Your task to perform on an android device: toggle wifi Image 0: 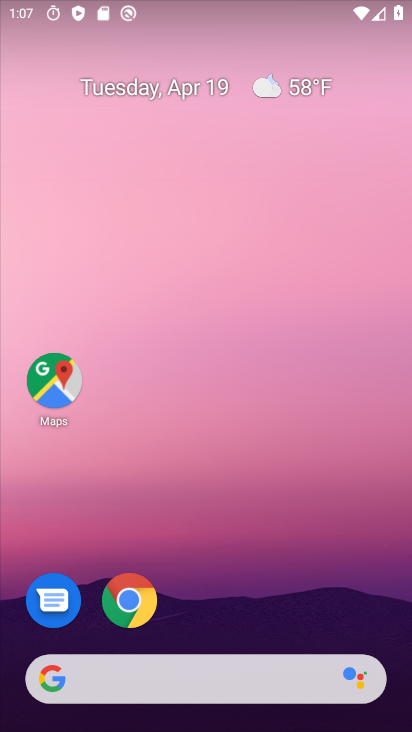
Step 0: drag from (192, 709) to (391, 192)
Your task to perform on an android device: toggle wifi Image 1: 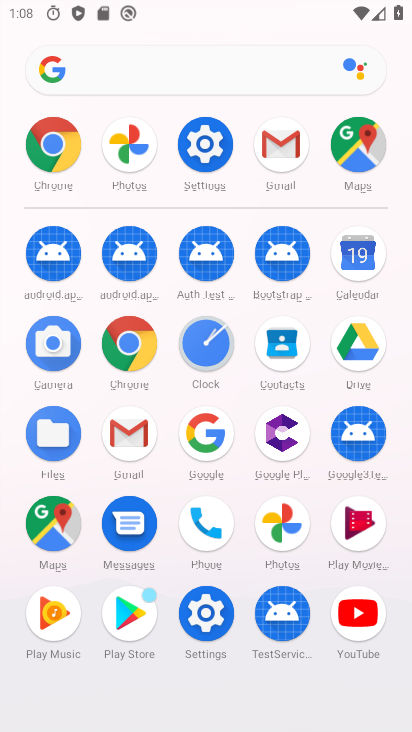
Step 1: click (218, 162)
Your task to perform on an android device: toggle wifi Image 2: 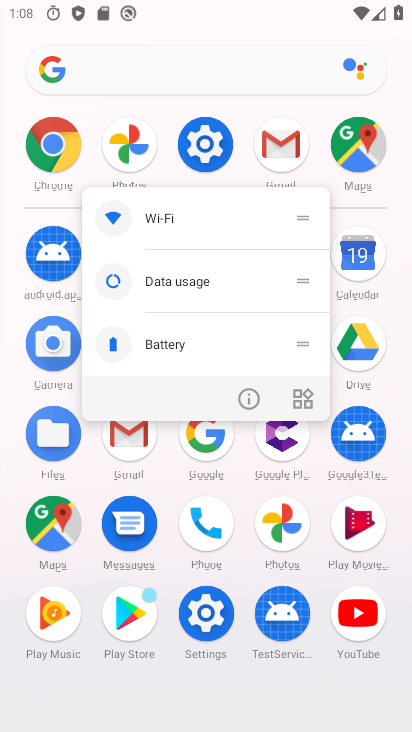
Step 2: click (218, 162)
Your task to perform on an android device: toggle wifi Image 3: 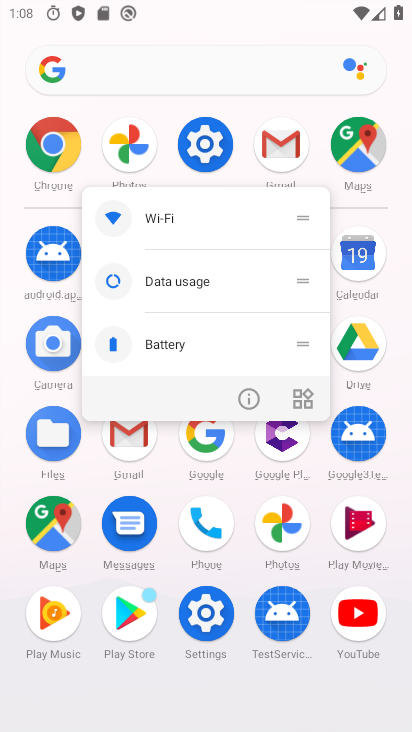
Step 3: click (218, 162)
Your task to perform on an android device: toggle wifi Image 4: 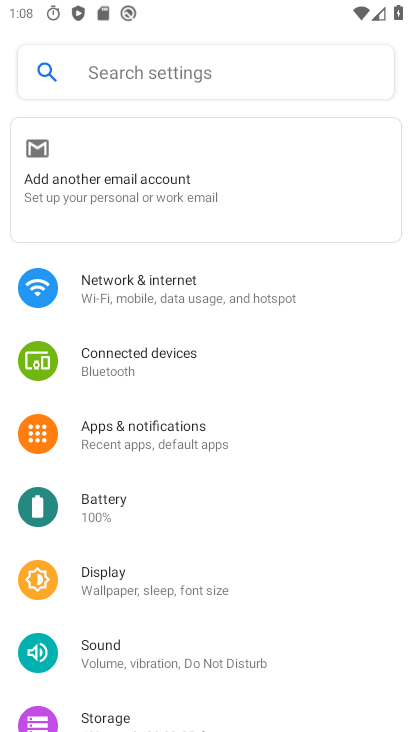
Step 4: click (136, 273)
Your task to perform on an android device: toggle wifi Image 5: 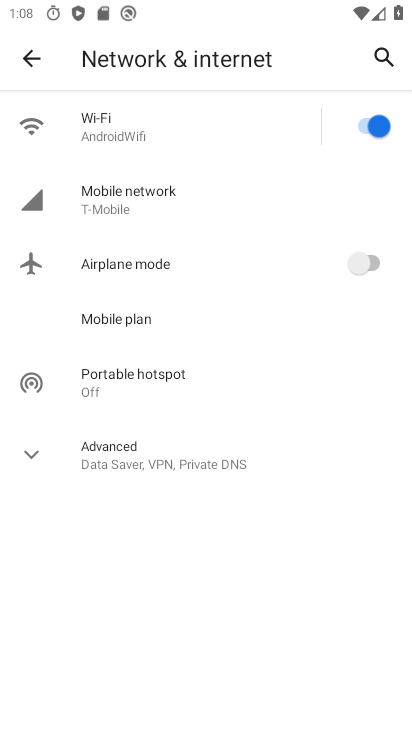
Step 5: click (149, 137)
Your task to perform on an android device: toggle wifi Image 6: 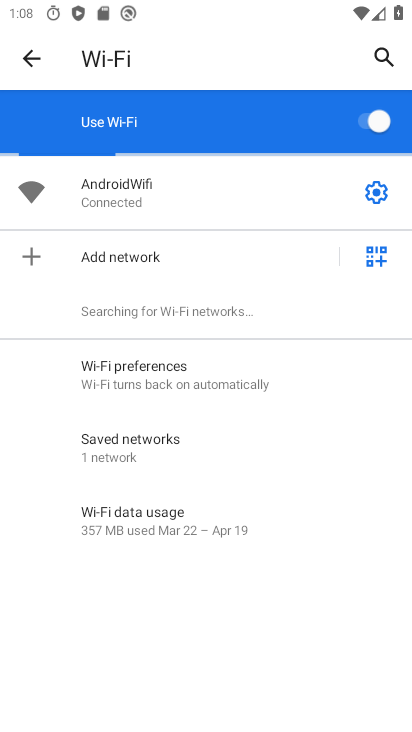
Step 6: task complete